Your task to perform on an android device: set an alarm Image 0: 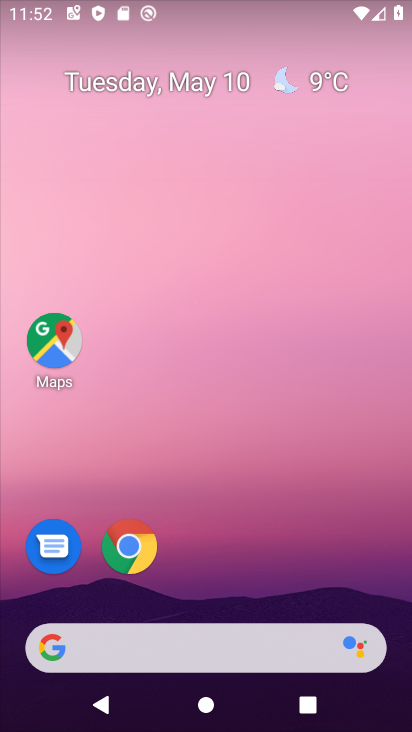
Step 0: drag from (190, 551) to (293, 138)
Your task to perform on an android device: set an alarm Image 1: 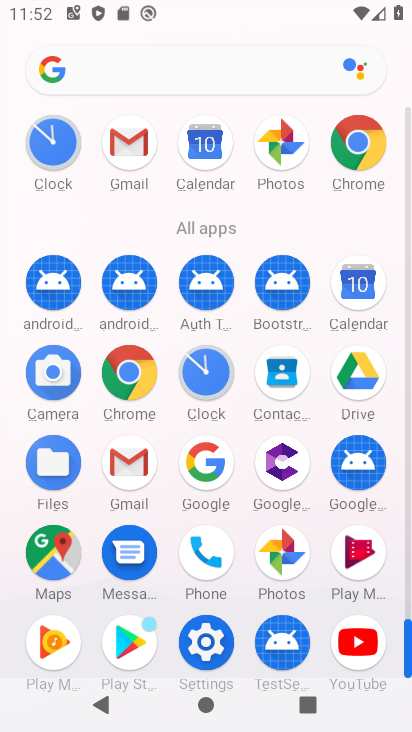
Step 1: click (207, 354)
Your task to perform on an android device: set an alarm Image 2: 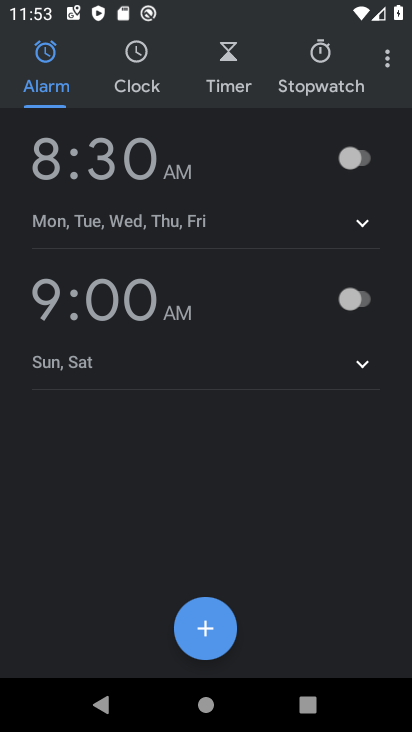
Step 2: click (356, 152)
Your task to perform on an android device: set an alarm Image 3: 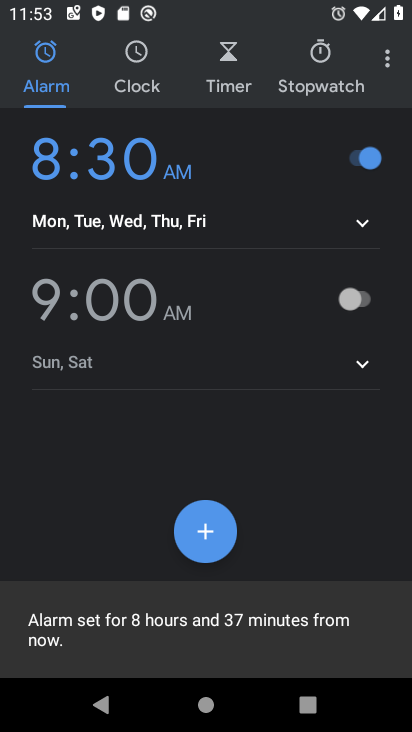
Step 3: task complete